Your task to perform on an android device: Check the news Image 0: 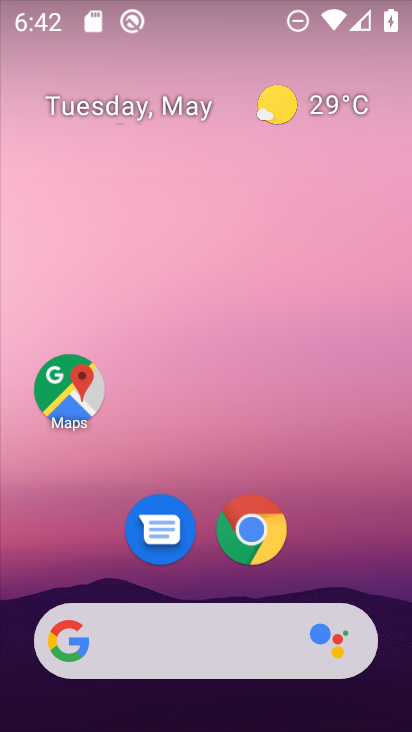
Step 0: drag from (396, 637) to (365, 37)
Your task to perform on an android device: Check the news Image 1: 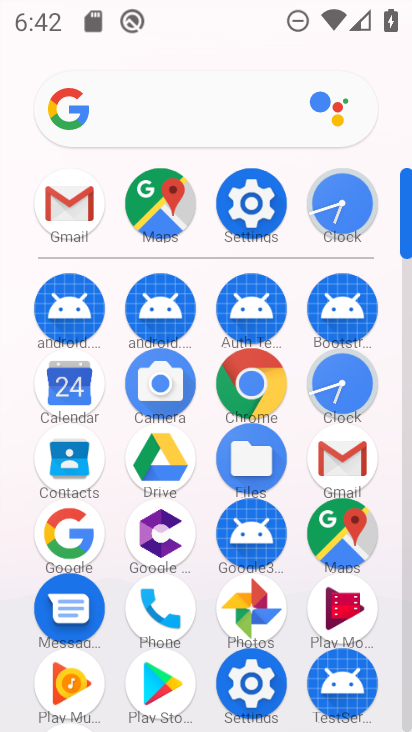
Step 1: click (75, 524)
Your task to perform on an android device: Check the news Image 2: 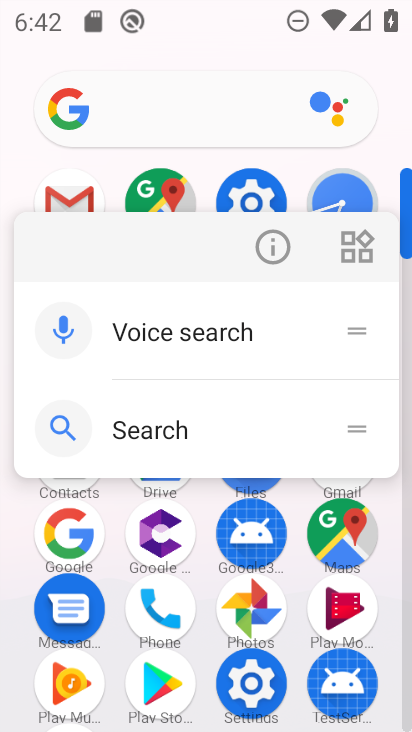
Step 2: click (75, 524)
Your task to perform on an android device: Check the news Image 3: 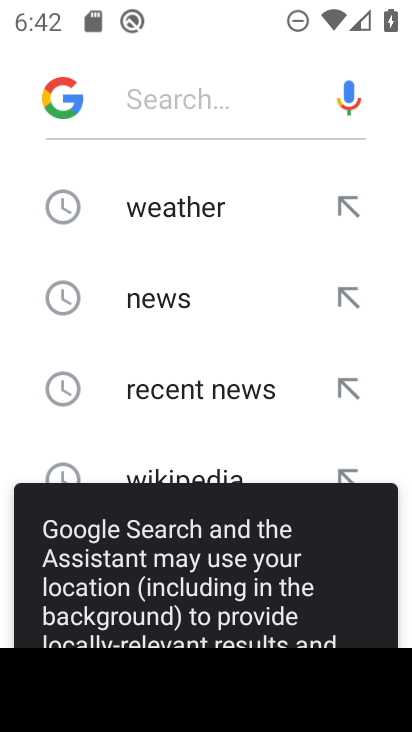
Step 3: click (166, 306)
Your task to perform on an android device: Check the news Image 4: 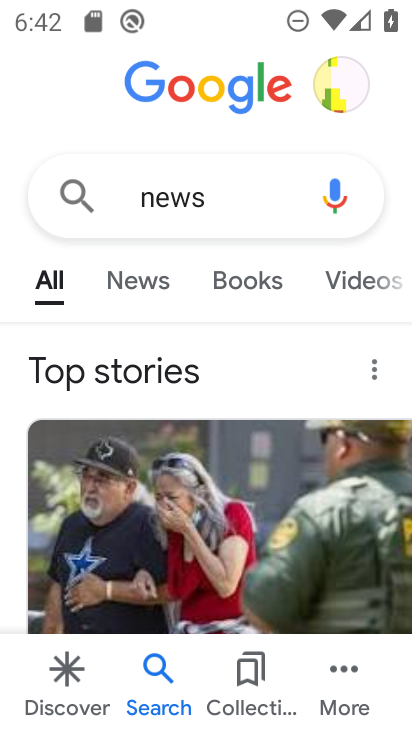
Step 4: task complete